Your task to perform on an android device: Open privacy settings Image 0: 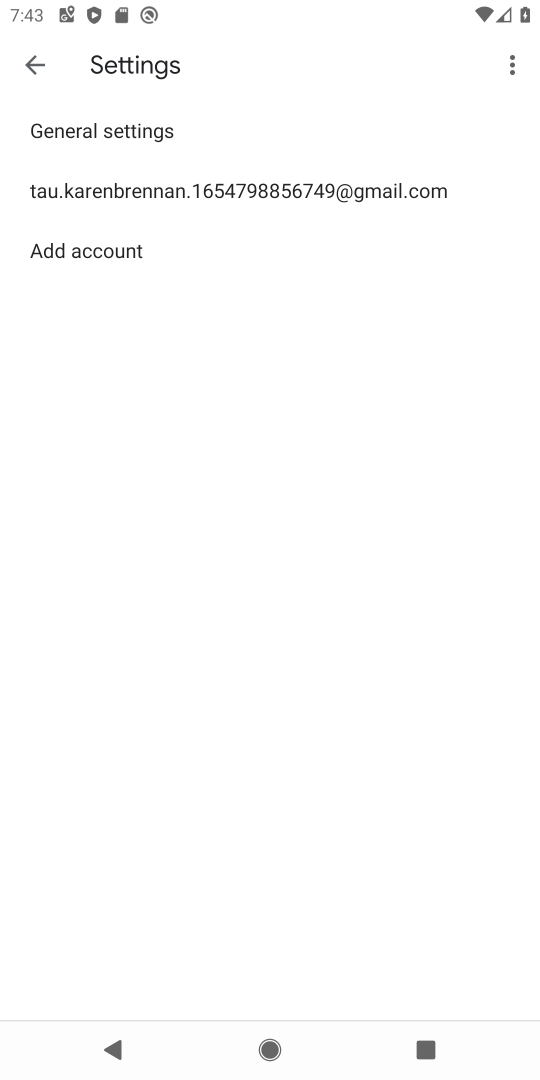
Step 0: press home button
Your task to perform on an android device: Open privacy settings Image 1: 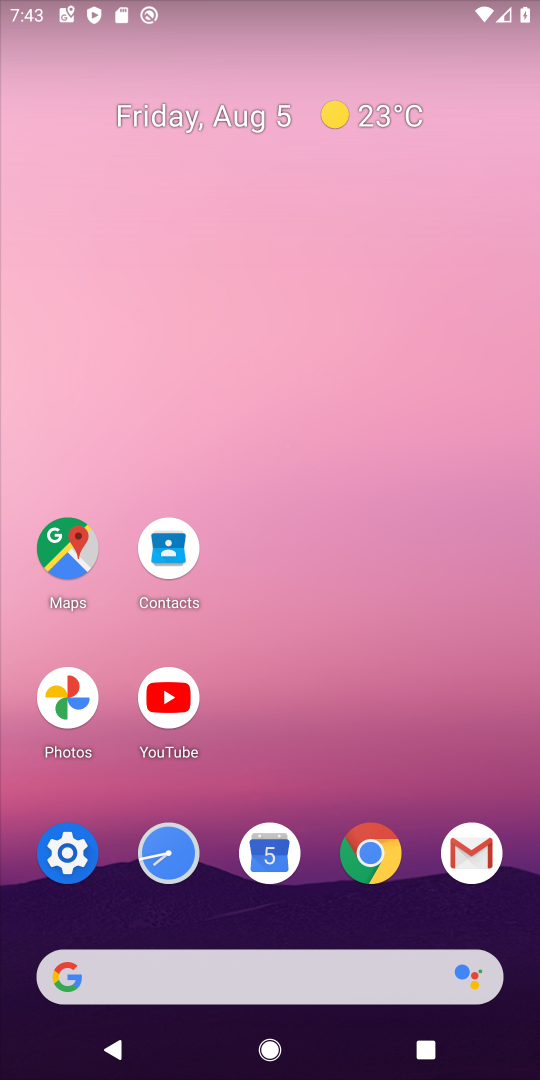
Step 1: click (69, 845)
Your task to perform on an android device: Open privacy settings Image 2: 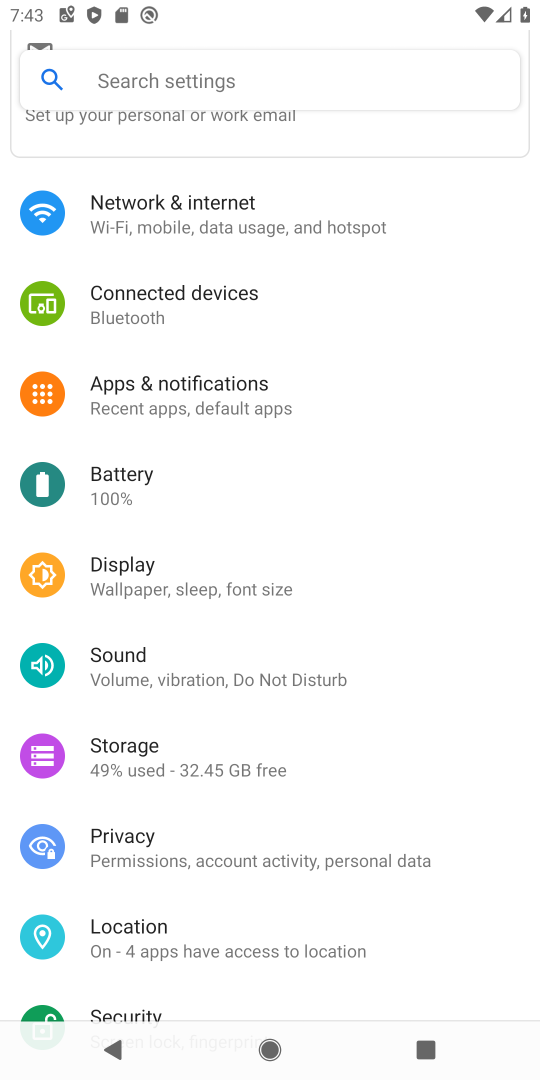
Step 2: click (128, 830)
Your task to perform on an android device: Open privacy settings Image 3: 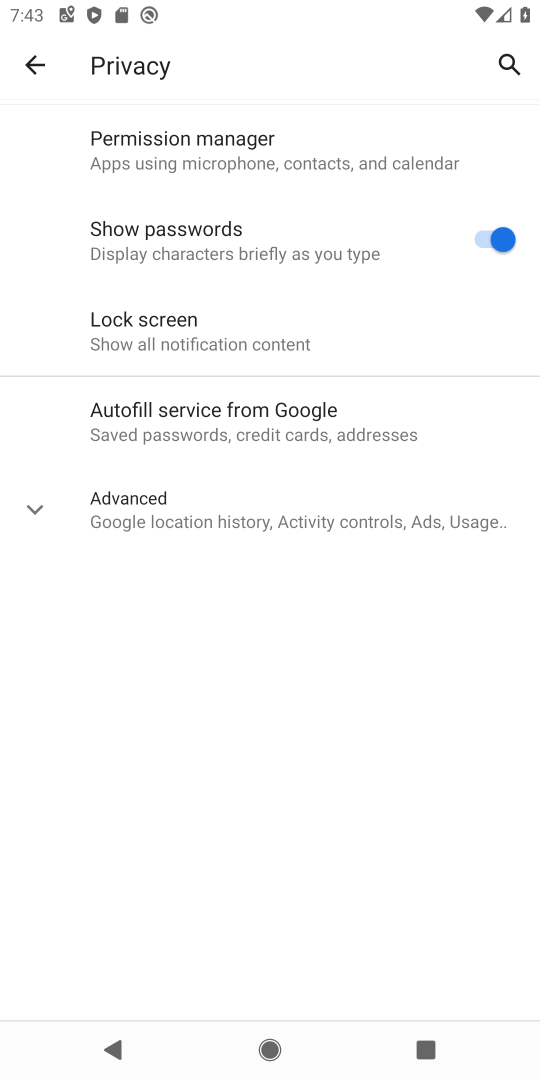
Step 3: task complete